Your task to perform on an android device: Open calendar and show me the second week of next month Image 0: 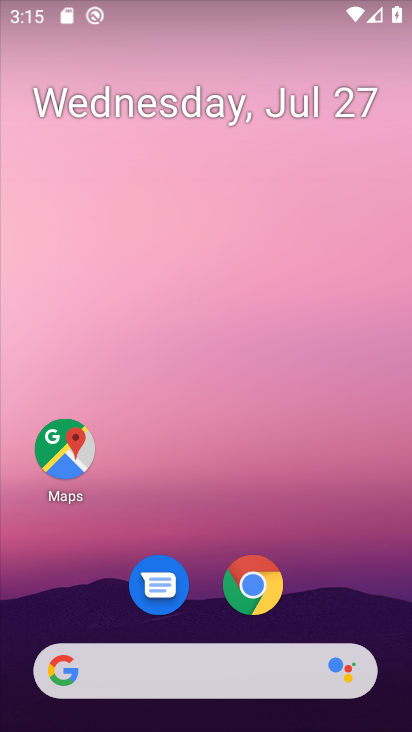
Step 0: drag from (219, 519) to (209, 99)
Your task to perform on an android device: Open calendar and show me the second week of next month Image 1: 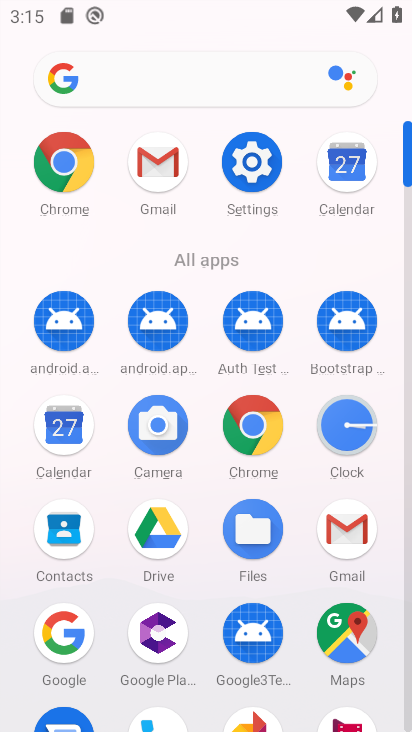
Step 1: click (355, 174)
Your task to perform on an android device: Open calendar and show me the second week of next month Image 2: 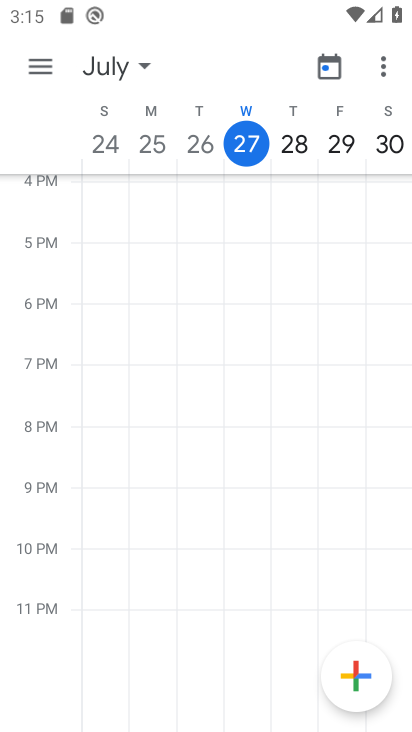
Step 2: task complete